Your task to perform on an android device: Open wifi settings Image 0: 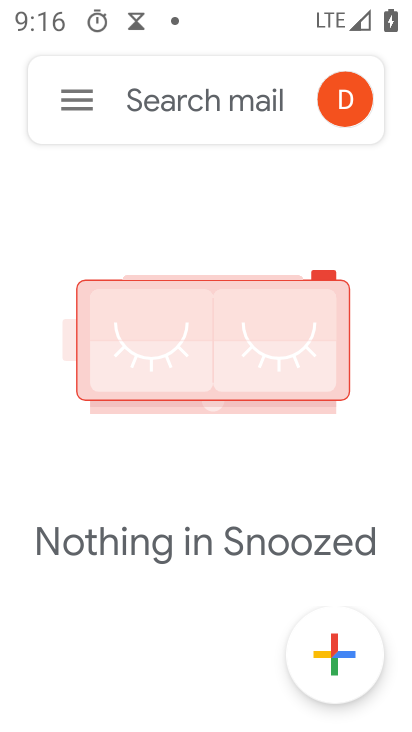
Step 0: press home button
Your task to perform on an android device: Open wifi settings Image 1: 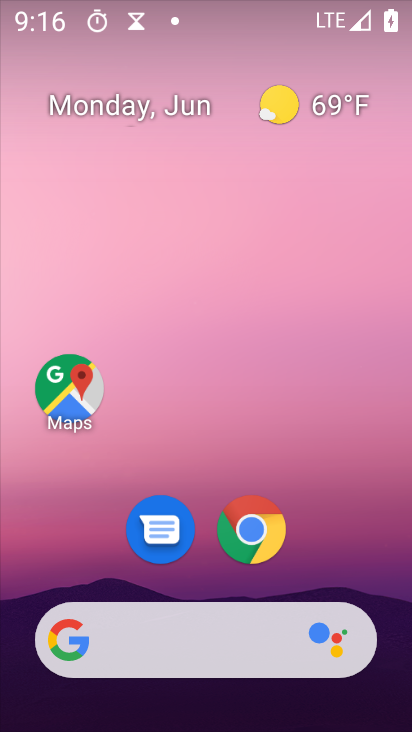
Step 1: drag from (299, 524) to (257, 46)
Your task to perform on an android device: Open wifi settings Image 2: 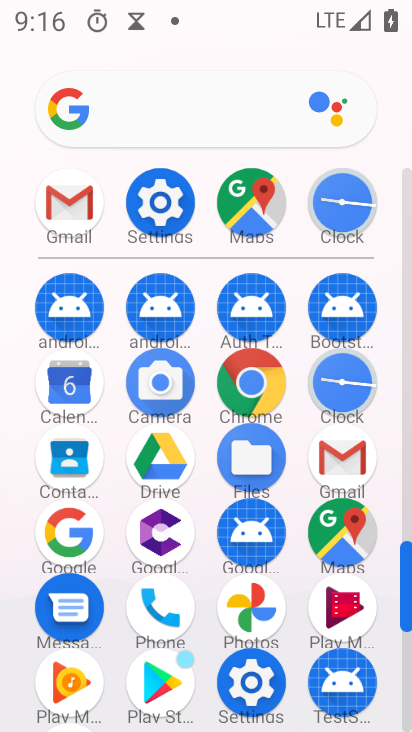
Step 2: click (171, 203)
Your task to perform on an android device: Open wifi settings Image 3: 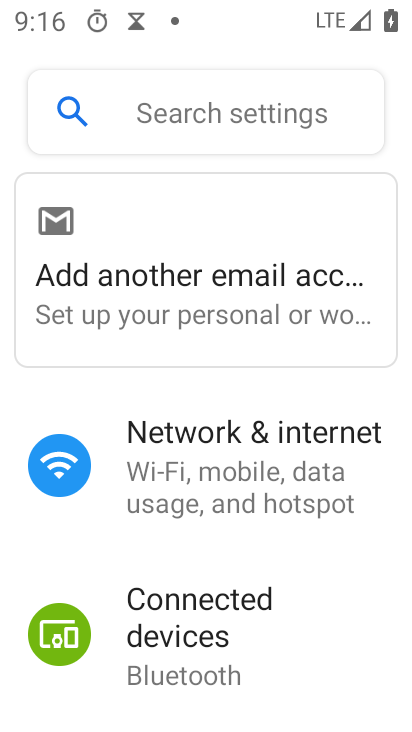
Step 3: click (193, 456)
Your task to perform on an android device: Open wifi settings Image 4: 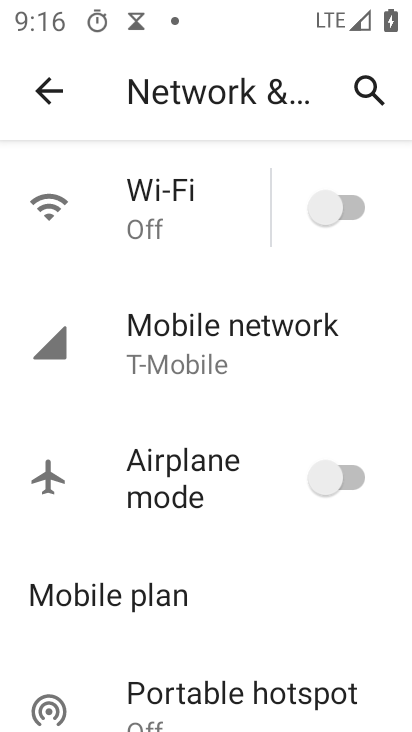
Step 4: click (82, 210)
Your task to perform on an android device: Open wifi settings Image 5: 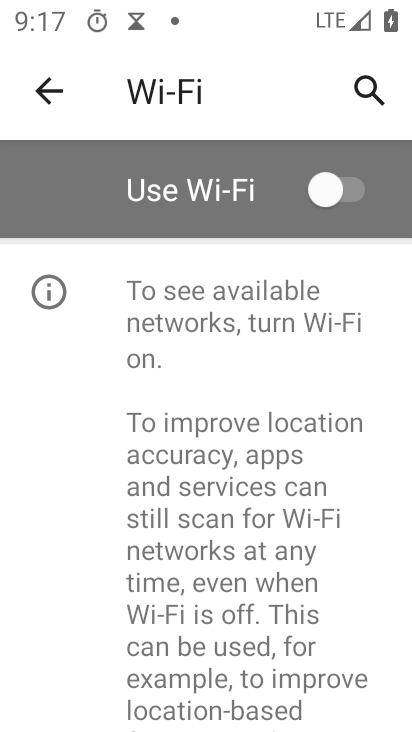
Step 5: task complete